Your task to perform on an android device: empty trash in the gmail app Image 0: 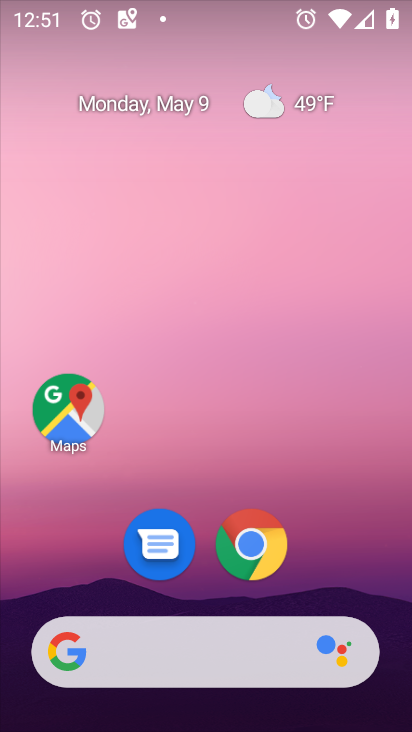
Step 0: drag from (227, 620) to (294, 19)
Your task to perform on an android device: empty trash in the gmail app Image 1: 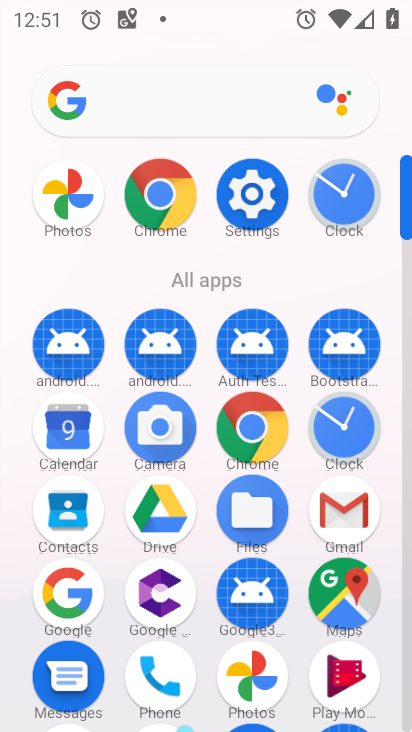
Step 1: click (337, 513)
Your task to perform on an android device: empty trash in the gmail app Image 2: 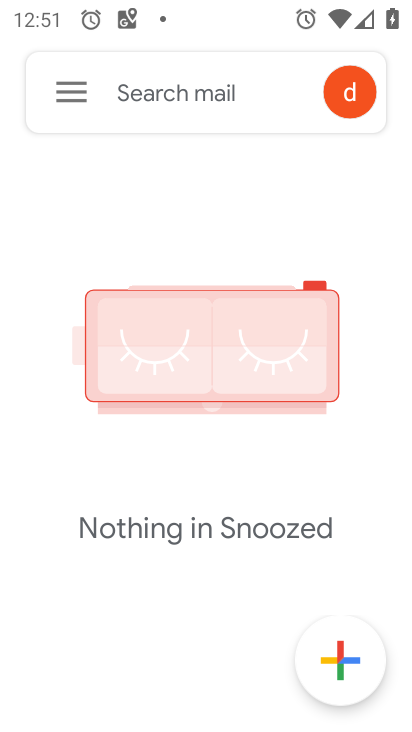
Step 2: click (68, 86)
Your task to perform on an android device: empty trash in the gmail app Image 3: 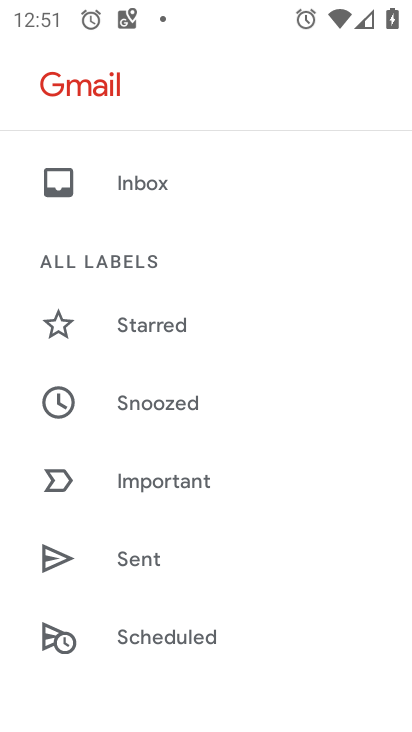
Step 3: drag from (103, 548) to (169, 128)
Your task to perform on an android device: empty trash in the gmail app Image 4: 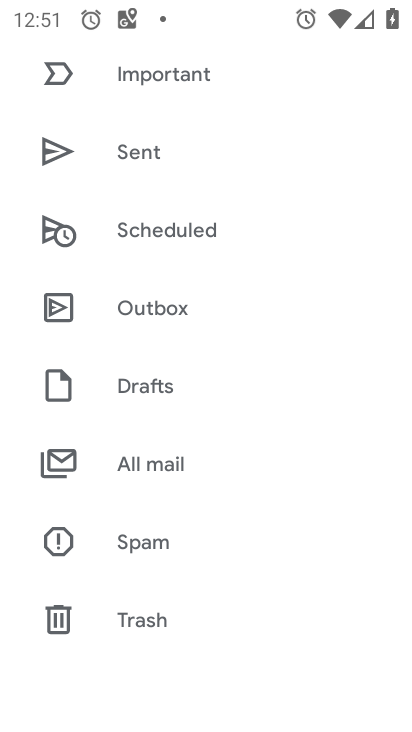
Step 4: click (147, 626)
Your task to perform on an android device: empty trash in the gmail app Image 5: 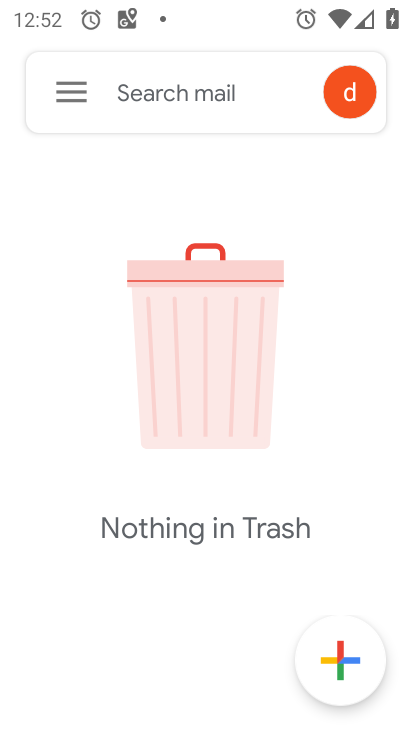
Step 5: task complete